Your task to perform on an android device: Turn on the flashlight Image 0: 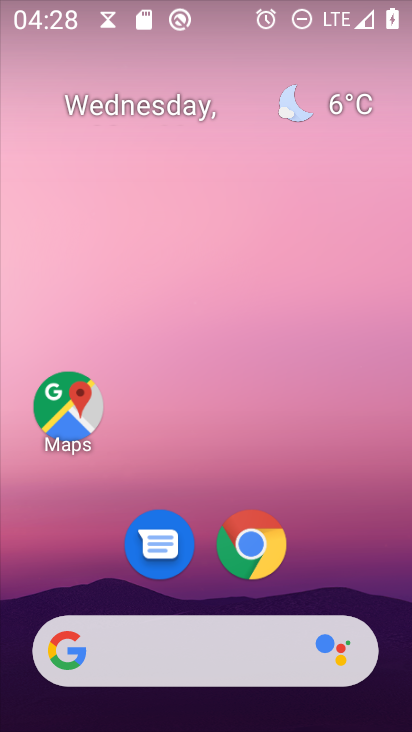
Step 0: drag from (347, 584) to (319, 97)
Your task to perform on an android device: Turn on the flashlight Image 1: 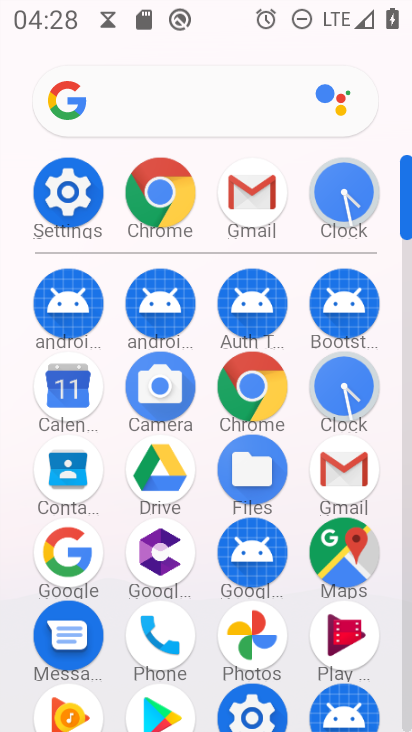
Step 1: click (67, 197)
Your task to perform on an android device: Turn on the flashlight Image 2: 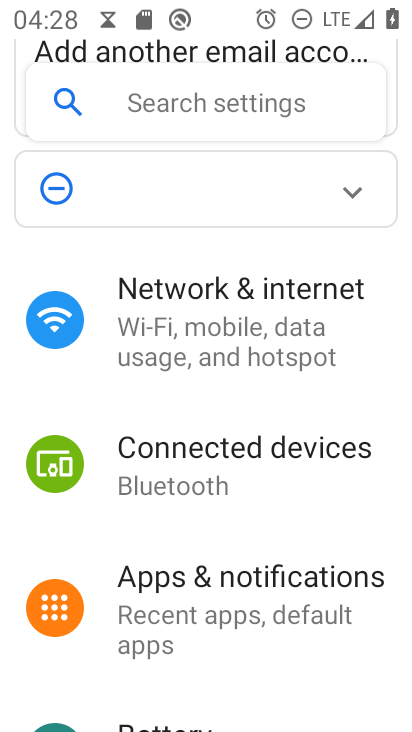
Step 2: task complete